Your task to perform on an android device: toggle javascript in the chrome app Image 0: 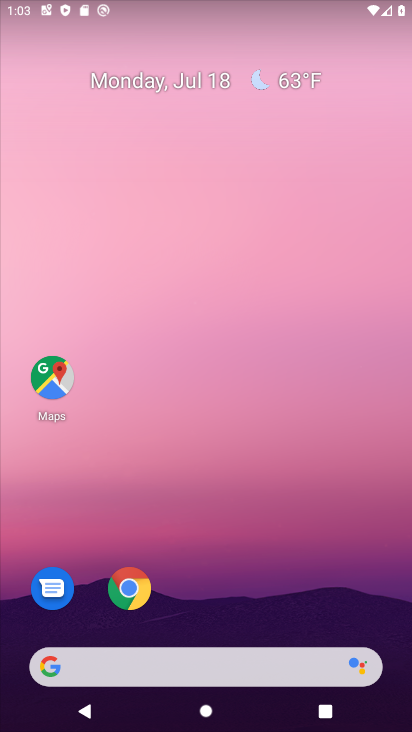
Step 0: click (195, 91)
Your task to perform on an android device: toggle javascript in the chrome app Image 1: 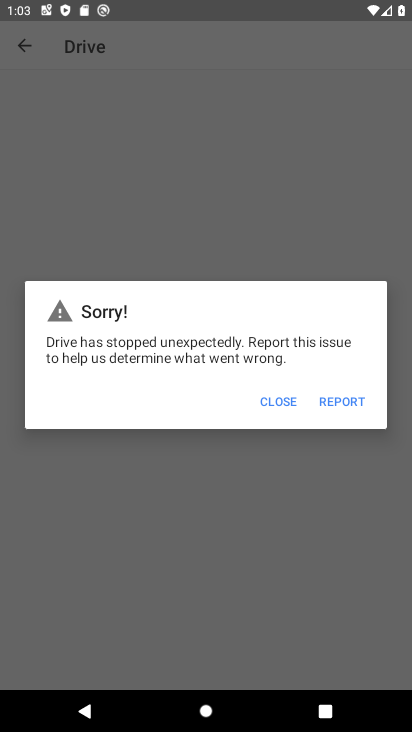
Step 1: press home button
Your task to perform on an android device: toggle javascript in the chrome app Image 2: 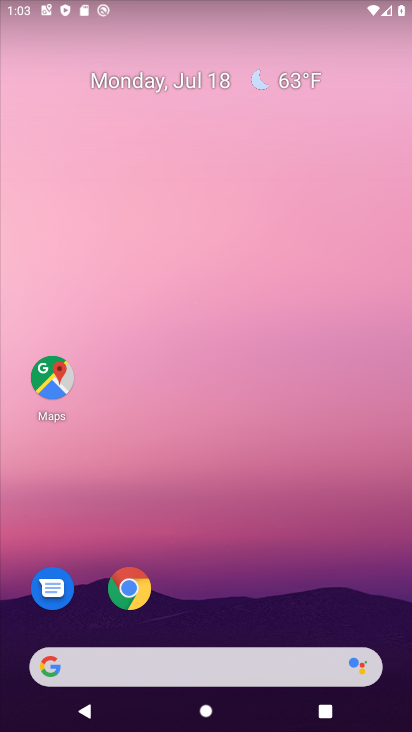
Step 2: click (137, 577)
Your task to perform on an android device: toggle javascript in the chrome app Image 3: 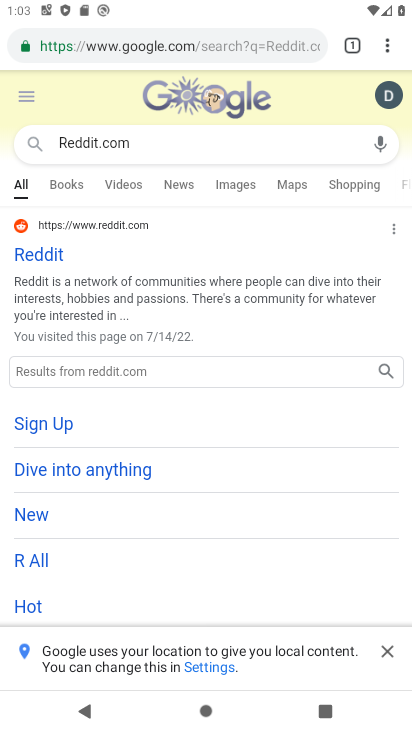
Step 3: click (386, 38)
Your task to perform on an android device: toggle javascript in the chrome app Image 4: 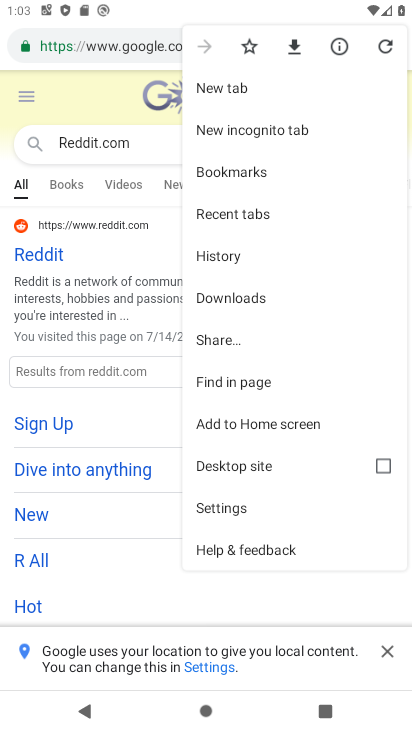
Step 4: click (225, 505)
Your task to perform on an android device: toggle javascript in the chrome app Image 5: 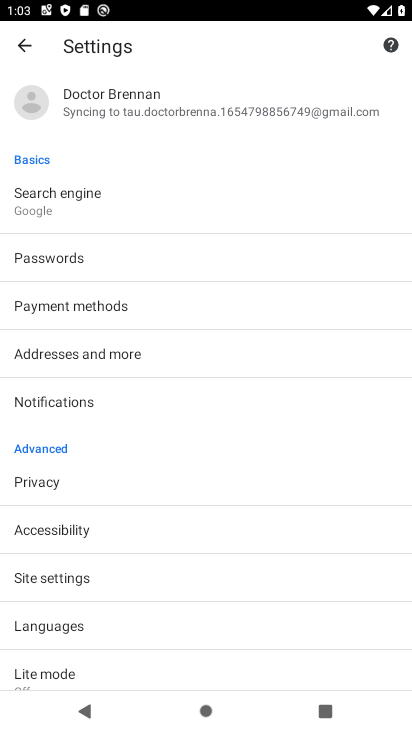
Step 5: click (49, 572)
Your task to perform on an android device: toggle javascript in the chrome app Image 6: 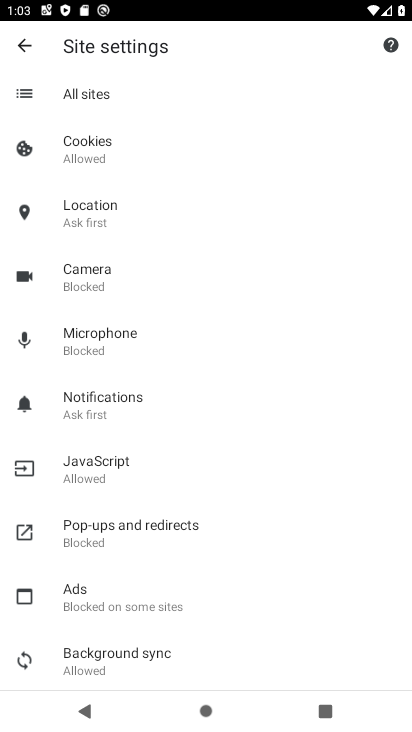
Step 6: click (91, 466)
Your task to perform on an android device: toggle javascript in the chrome app Image 7: 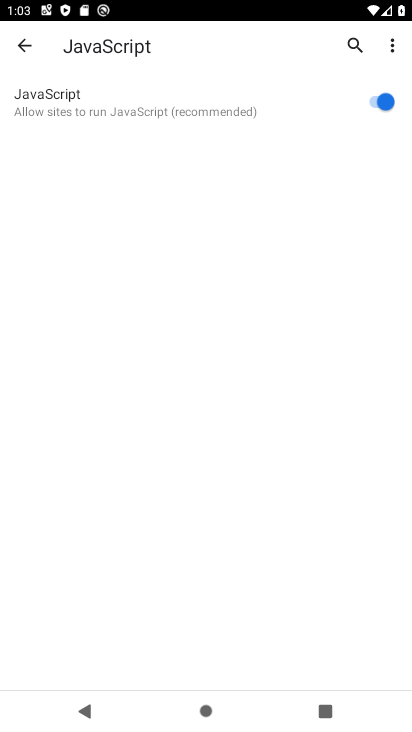
Step 7: click (389, 96)
Your task to perform on an android device: toggle javascript in the chrome app Image 8: 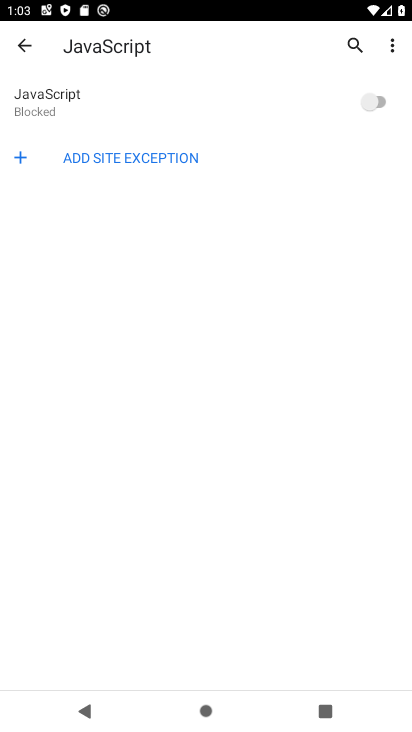
Step 8: task complete